Your task to perform on an android device: Open Maps and search for coffee Image 0: 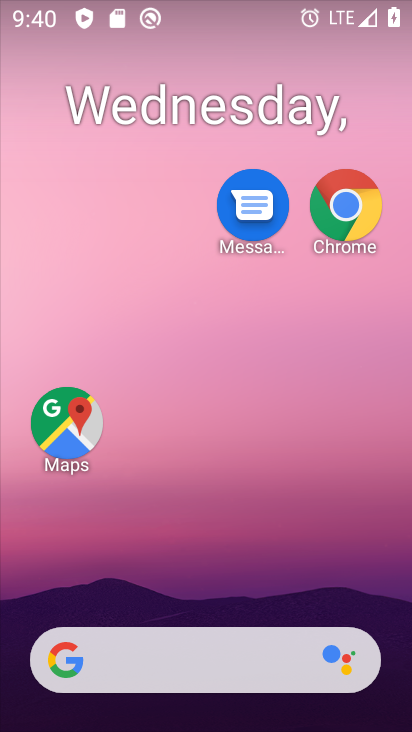
Step 0: drag from (209, 602) to (196, 113)
Your task to perform on an android device: Open Maps and search for coffee Image 1: 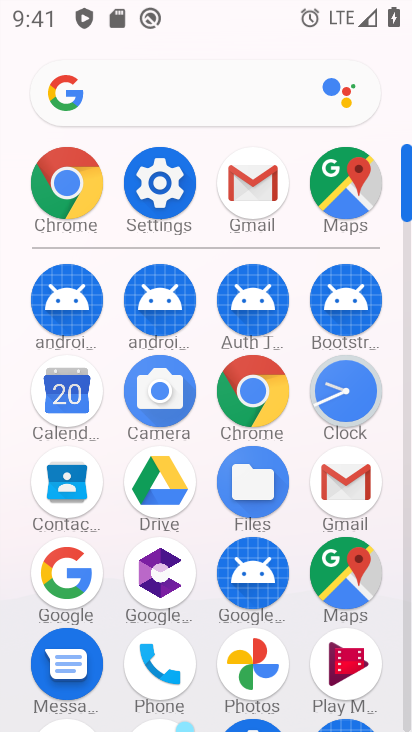
Step 1: click (341, 588)
Your task to perform on an android device: Open Maps and search for coffee Image 2: 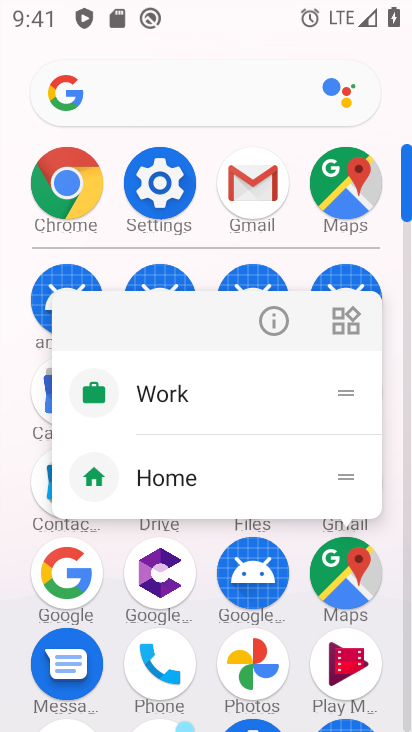
Step 2: click (267, 313)
Your task to perform on an android device: Open Maps and search for coffee Image 3: 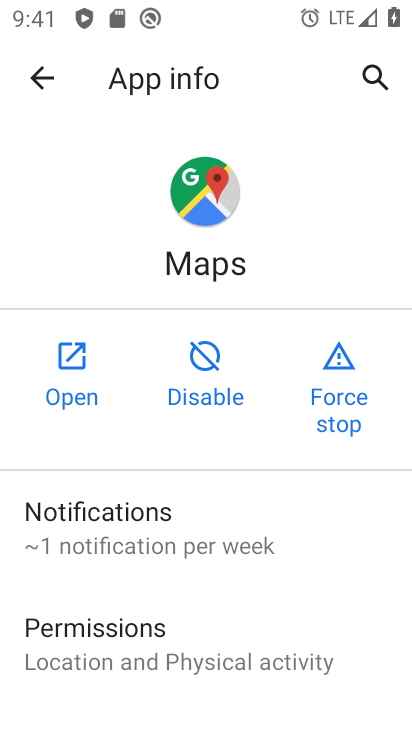
Step 3: click (71, 382)
Your task to perform on an android device: Open Maps and search for coffee Image 4: 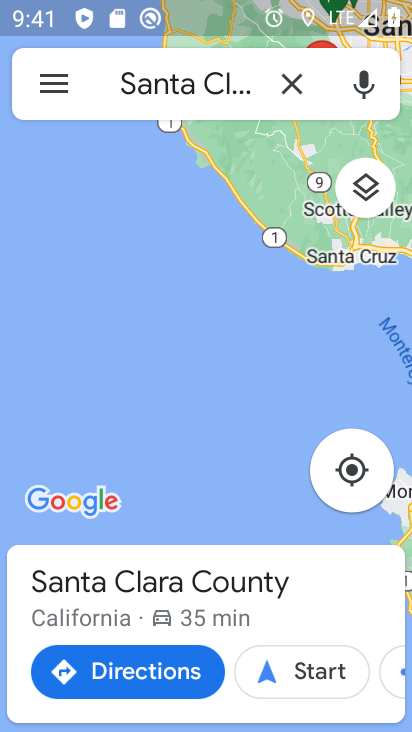
Step 4: click (303, 75)
Your task to perform on an android device: Open Maps and search for coffee Image 5: 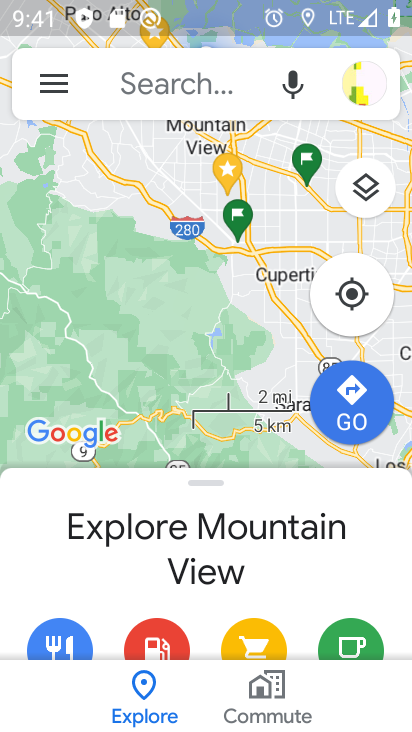
Step 5: click (155, 81)
Your task to perform on an android device: Open Maps and search for coffee Image 6: 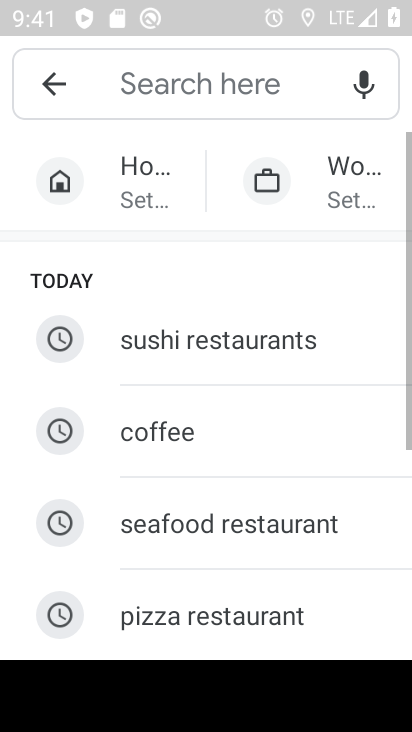
Step 6: click (216, 426)
Your task to perform on an android device: Open Maps and search for coffee Image 7: 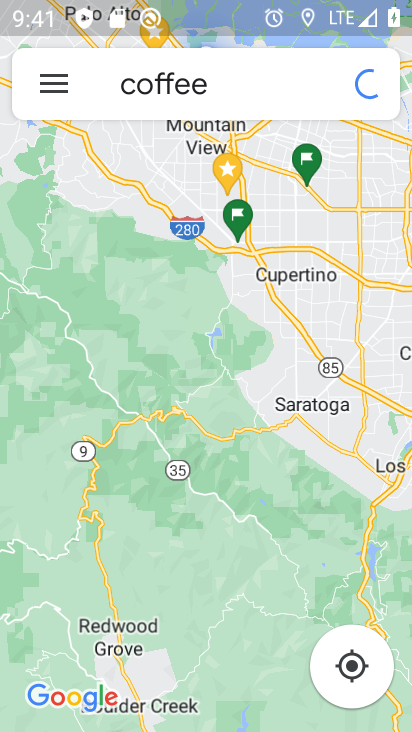
Step 7: task complete